Your task to perform on an android device: Open location settings Image 0: 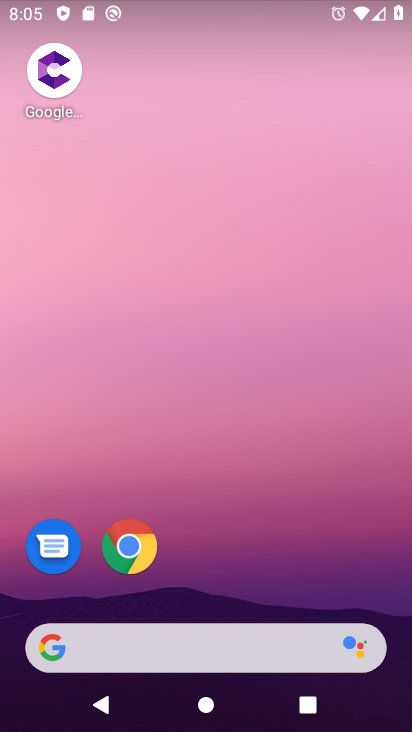
Step 0: drag from (194, 664) to (93, 72)
Your task to perform on an android device: Open location settings Image 1: 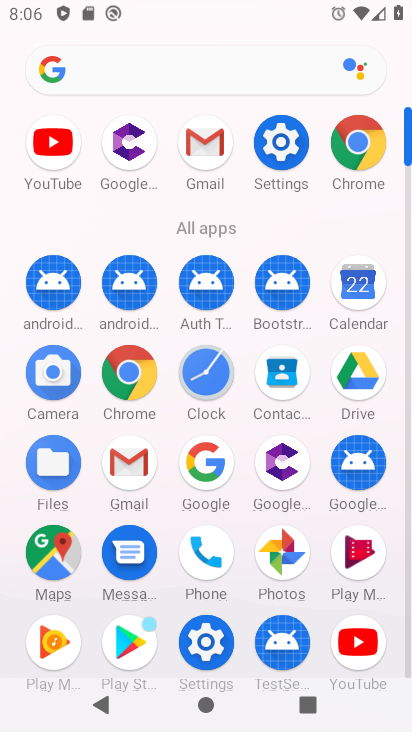
Step 1: click (272, 146)
Your task to perform on an android device: Open location settings Image 2: 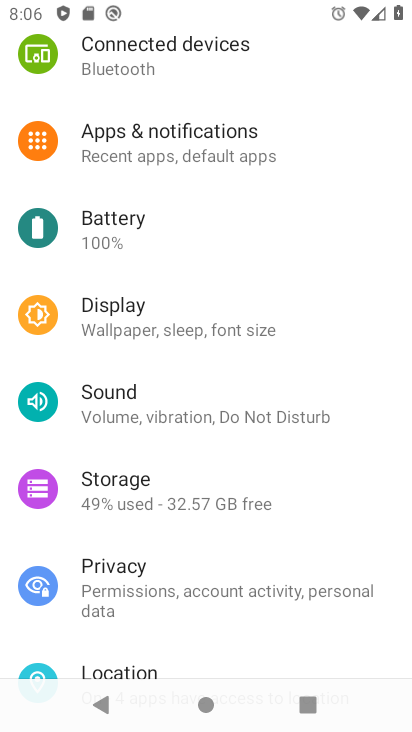
Step 2: drag from (190, 539) to (134, 236)
Your task to perform on an android device: Open location settings Image 3: 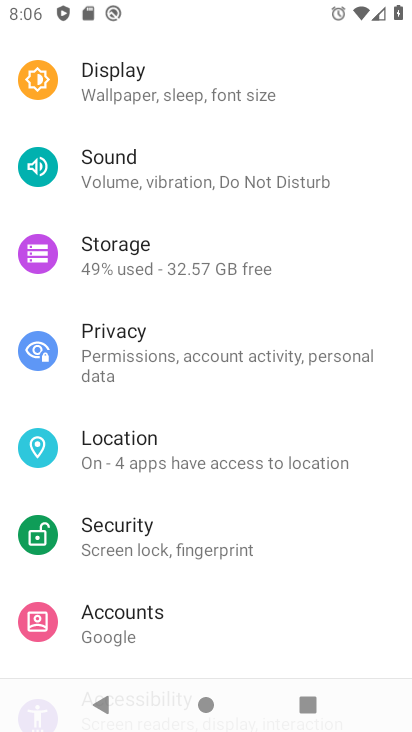
Step 3: drag from (163, 433) to (143, 261)
Your task to perform on an android device: Open location settings Image 4: 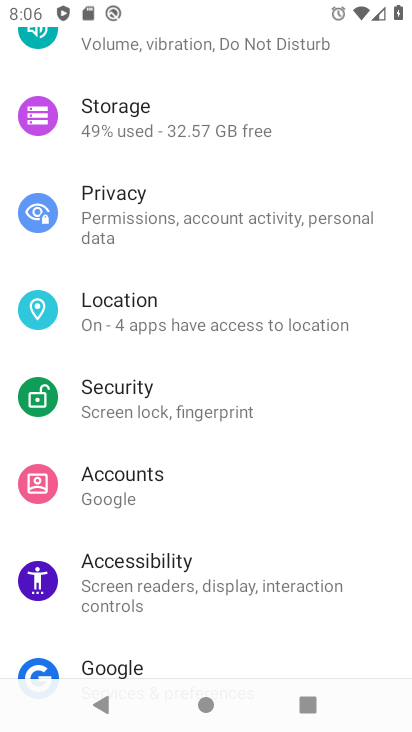
Step 4: click (128, 319)
Your task to perform on an android device: Open location settings Image 5: 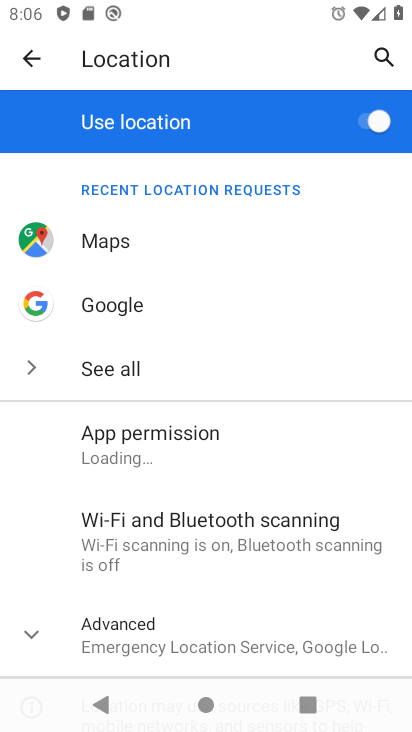
Step 5: task complete